Your task to perform on an android device: Turn on the flashlight Image 0: 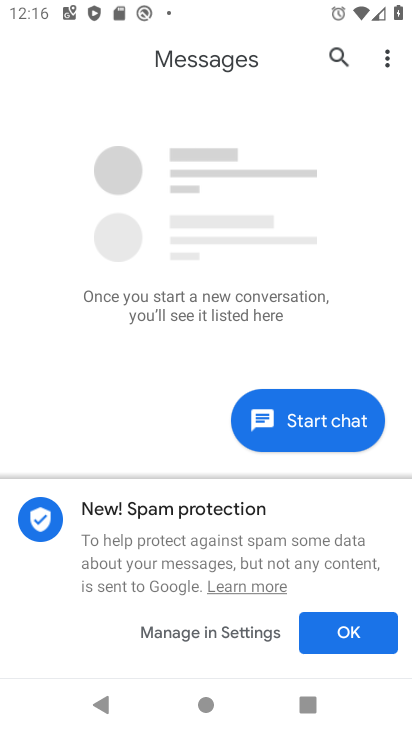
Step 0: press home button
Your task to perform on an android device: Turn on the flashlight Image 1: 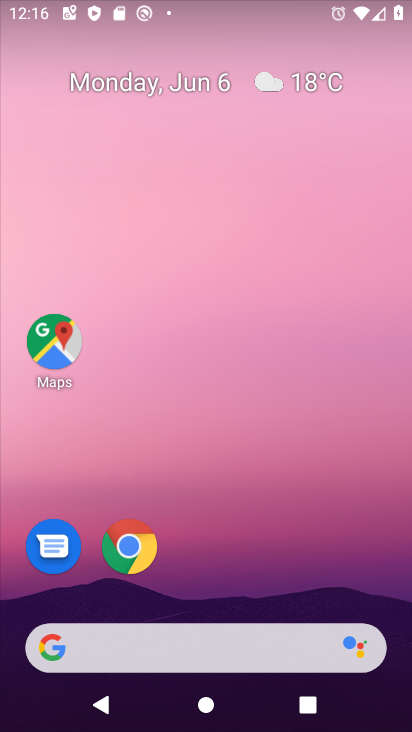
Step 1: drag from (238, 10) to (281, 712)
Your task to perform on an android device: Turn on the flashlight Image 2: 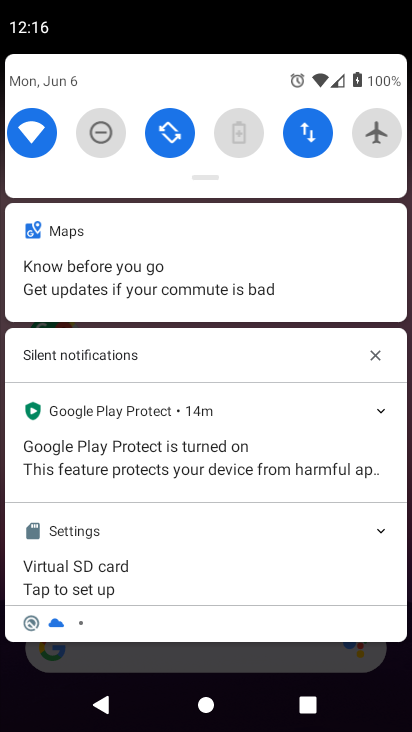
Step 2: drag from (200, 182) to (186, 670)
Your task to perform on an android device: Turn on the flashlight Image 3: 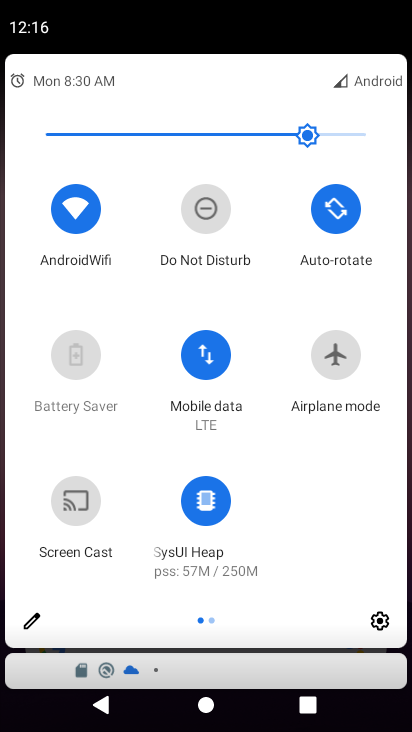
Step 3: click (24, 624)
Your task to perform on an android device: Turn on the flashlight Image 4: 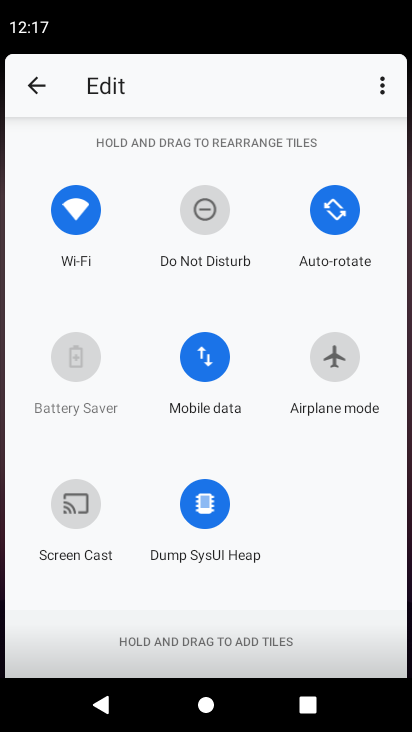
Step 4: task complete